Your task to perform on an android device: open a new tab in the chrome app Image 0: 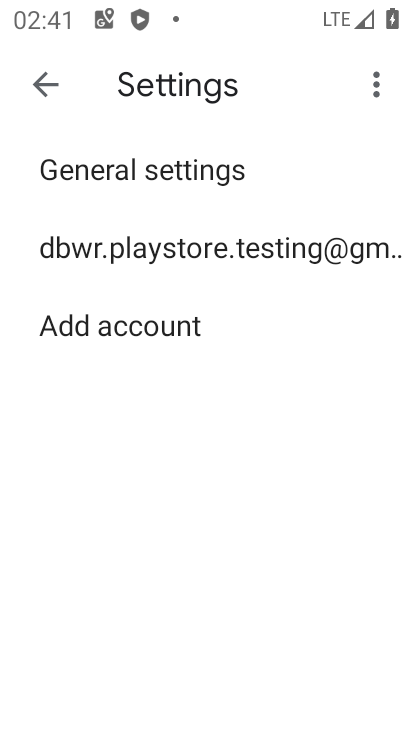
Step 0: press home button
Your task to perform on an android device: open a new tab in the chrome app Image 1: 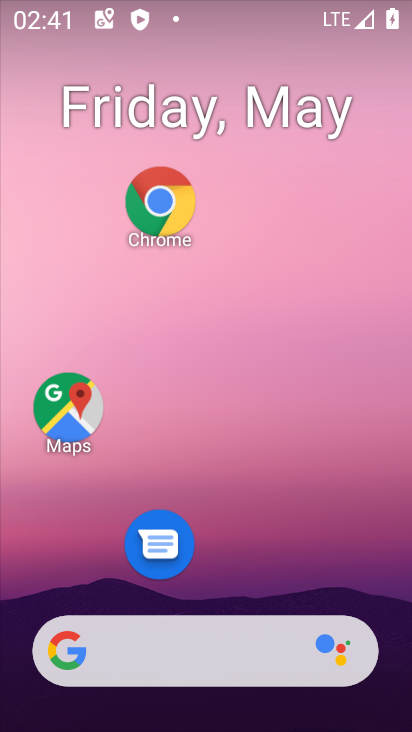
Step 1: drag from (257, 478) to (276, 146)
Your task to perform on an android device: open a new tab in the chrome app Image 2: 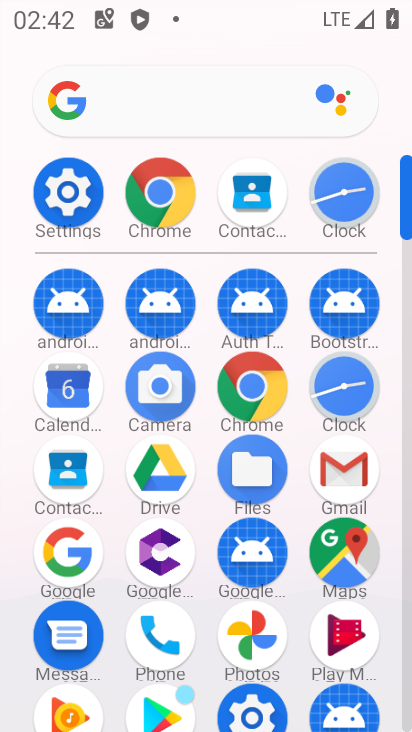
Step 2: click (250, 405)
Your task to perform on an android device: open a new tab in the chrome app Image 3: 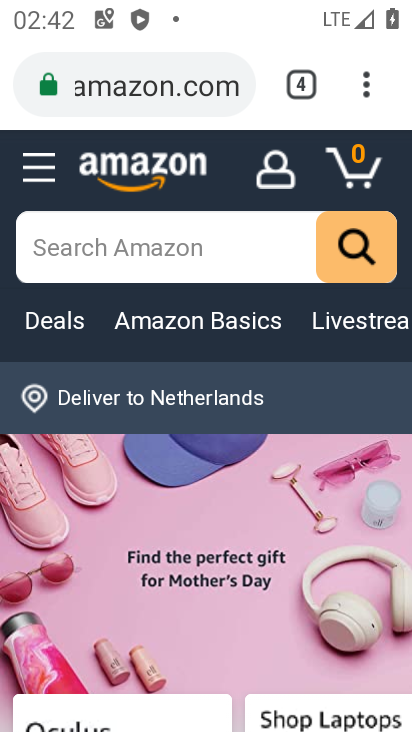
Step 3: click (308, 87)
Your task to perform on an android device: open a new tab in the chrome app Image 4: 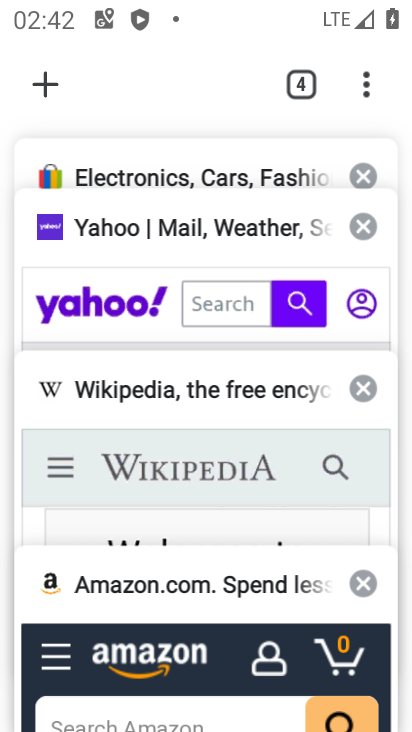
Step 4: click (38, 83)
Your task to perform on an android device: open a new tab in the chrome app Image 5: 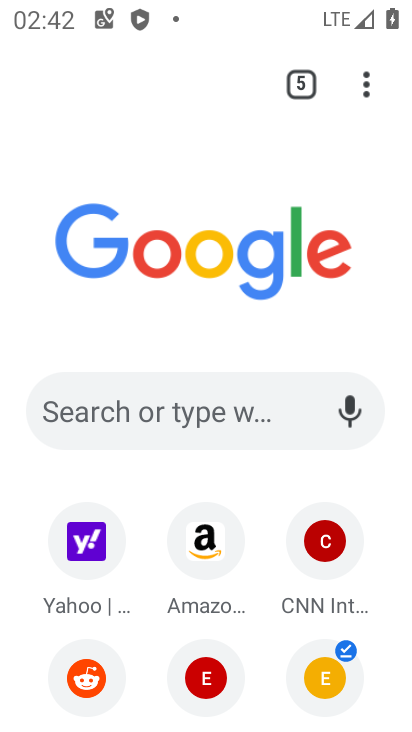
Step 5: task complete